Your task to perform on an android device: move a message to another label in the gmail app Image 0: 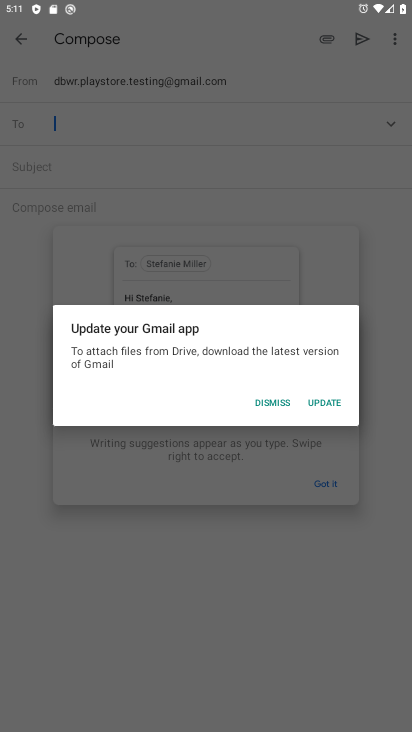
Step 0: press home button
Your task to perform on an android device: move a message to another label in the gmail app Image 1: 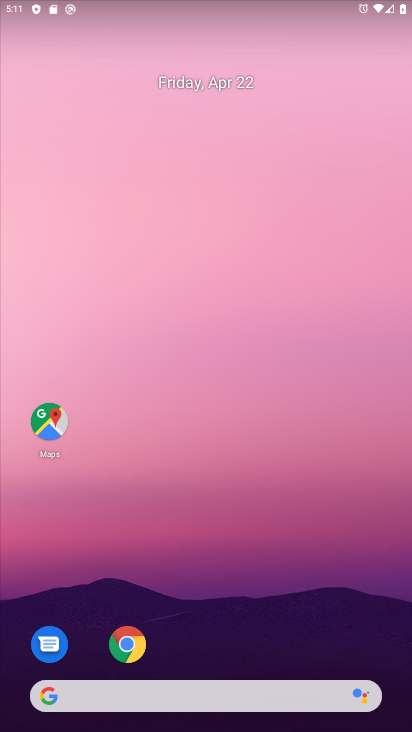
Step 1: drag from (203, 613) to (248, 121)
Your task to perform on an android device: move a message to another label in the gmail app Image 2: 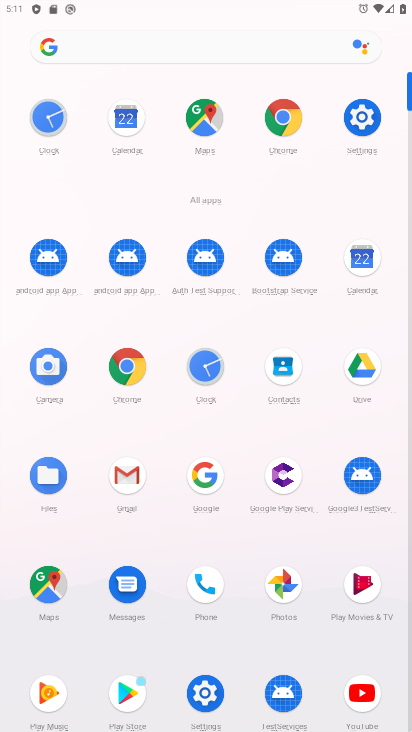
Step 2: click (129, 482)
Your task to perform on an android device: move a message to another label in the gmail app Image 3: 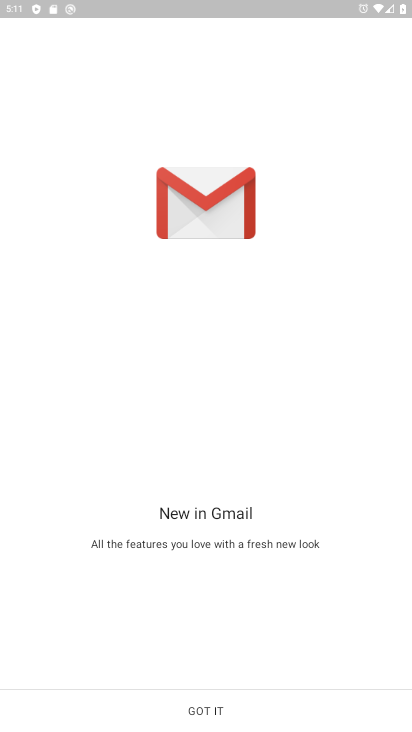
Step 3: click (219, 713)
Your task to perform on an android device: move a message to another label in the gmail app Image 4: 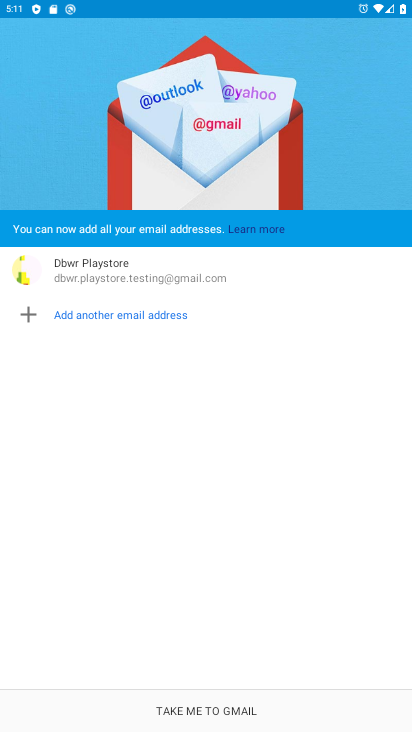
Step 4: click (210, 702)
Your task to perform on an android device: move a message to another label in the gmail app Image 5: 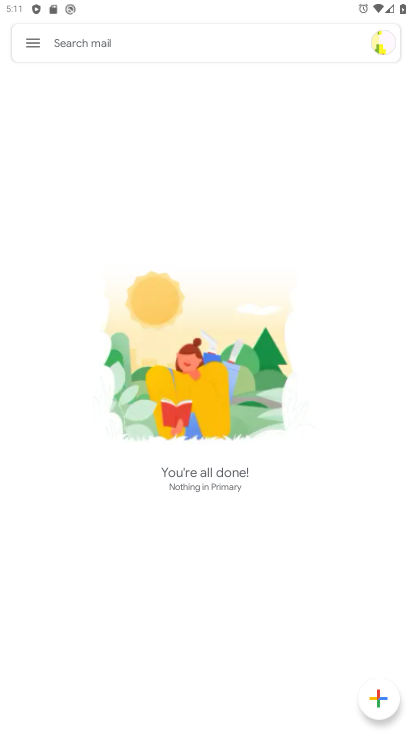
Step 5: click (37, 41)
Your task to perform on an android device: move a message to another label in the gmail app Image 6: 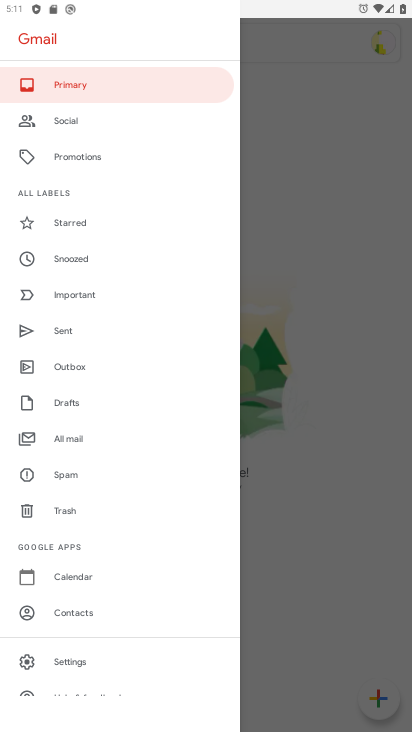
Step 6: click (68, 438)
Your task to perform on an android device: move a message to another label in the gmail app Image 7: 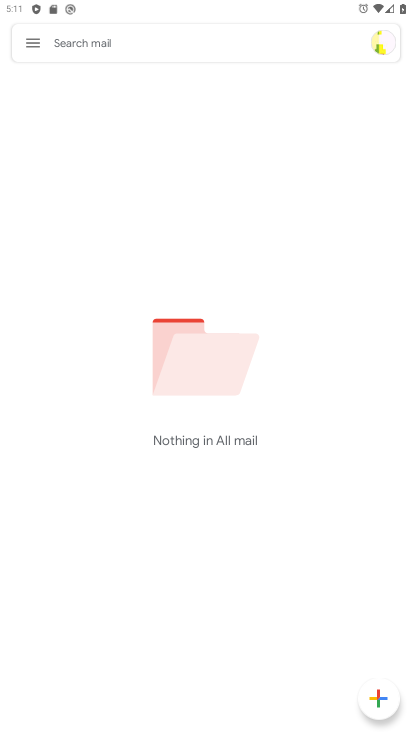
Step 7: task complete